Your task to perform on an android device: change notifications settings Image 0: 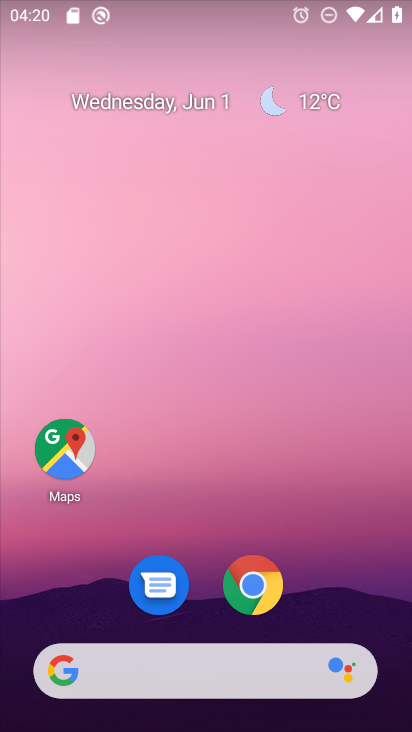
Step 0: drag from (211, 476) to (231, 27)
Your task to perform on an android device: change notifications settings Image 1: 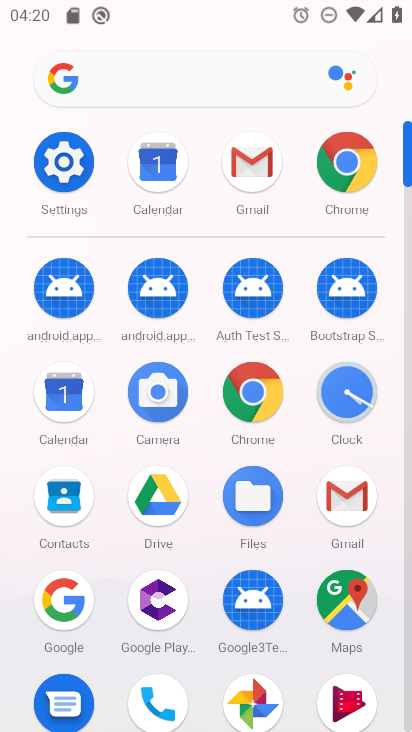
Step 1: click (74, 160)
Your task to perform on an android device: change notifications settings Image 2: 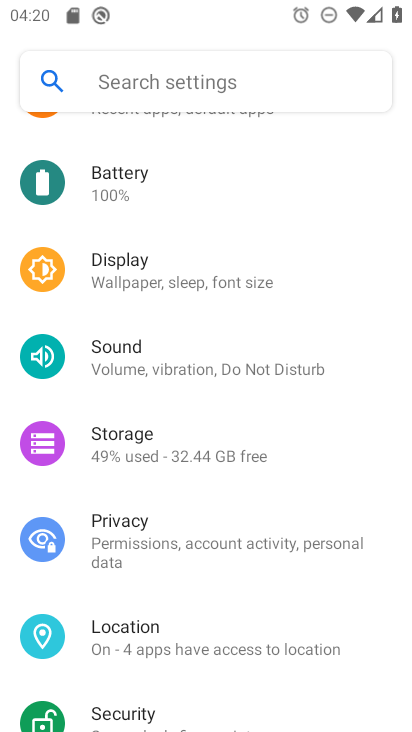
Step 2: drag from (220, 217) to (203, 675)
Your task to perform on an android device: change notifications settings Image 3: 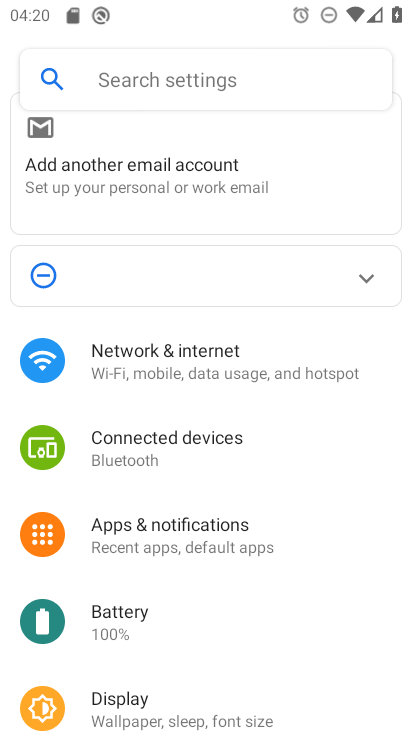
Step 3: click (195, 542)
Your task to perform on an android device: change notifications settings Image 4: 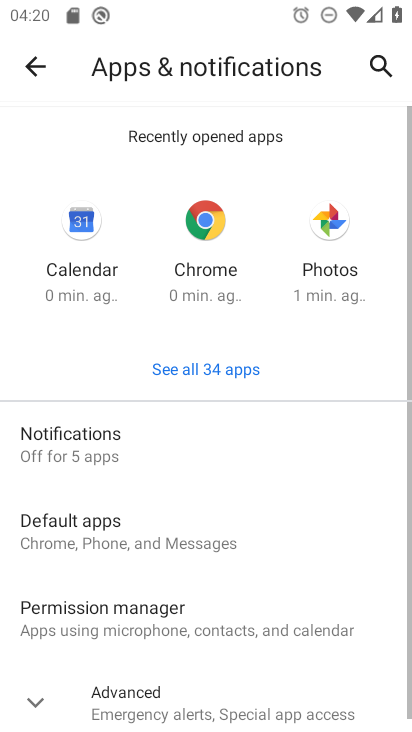
Step 4: click (235, 434)
Your task to perform on an android device: change notifications settings Image 5: 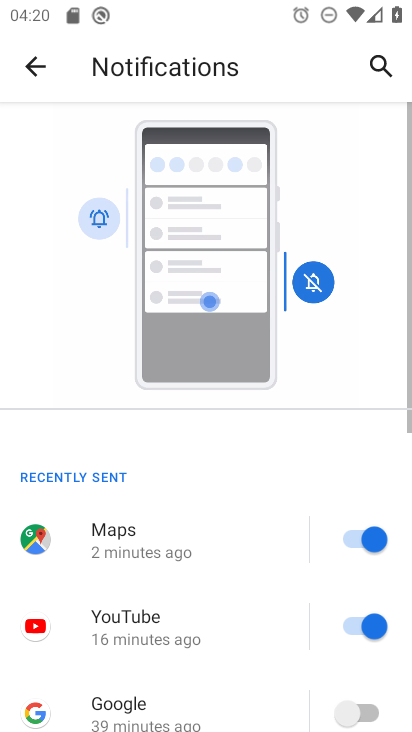
Step 5: drag from (284, 581) to (296, 137)
Your task to perform on an android device: change notifications settings Image 6: 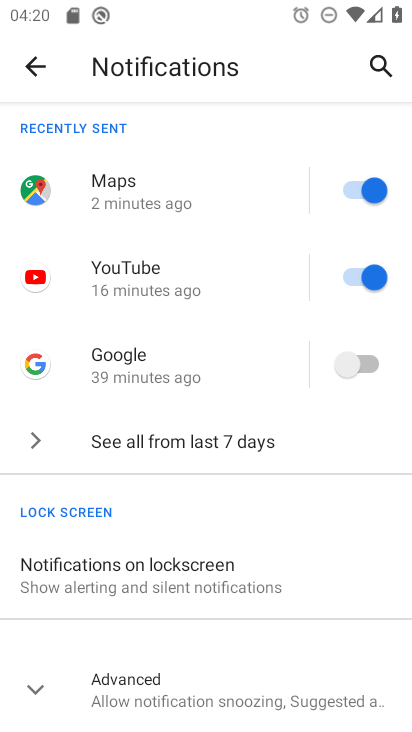
Step 6: click (245, 445)
Your task to perform on an android device: change notifications settings Image 7: 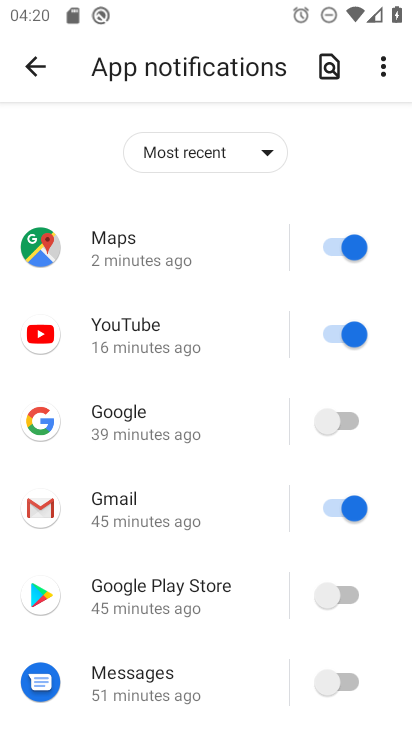
Step 7: click (339, 235)
Your task to perform on an android device: change notifications settings Image 8: 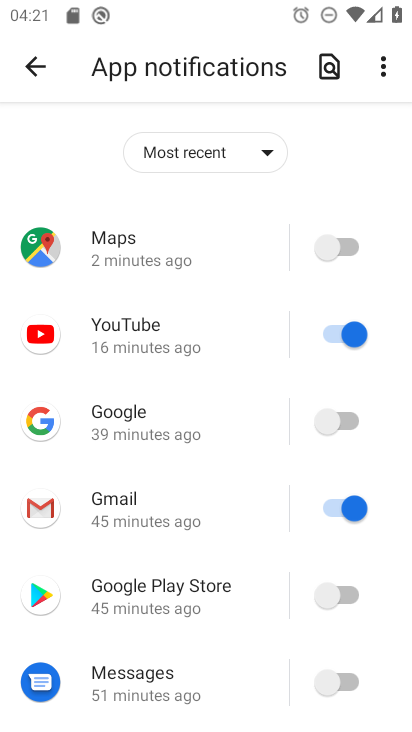
Step 8: click (342, 324)
Your task to perform on an android device: change notifications settings Image 9: 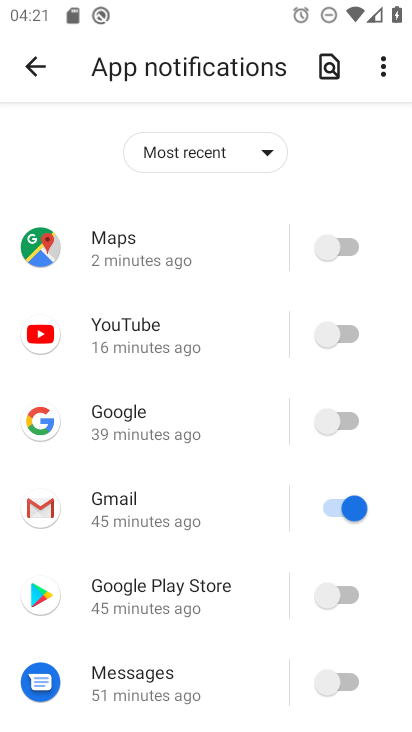
Step 9: click (350, 418)
Your task to perform on an android device: change notifications settings Image 10: 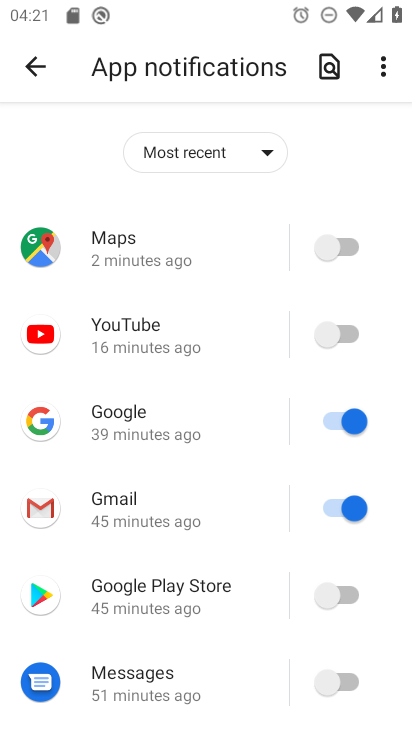
Step 10: click (348, 502)
Your task to perform on an android device: change notifications settings Image 11: 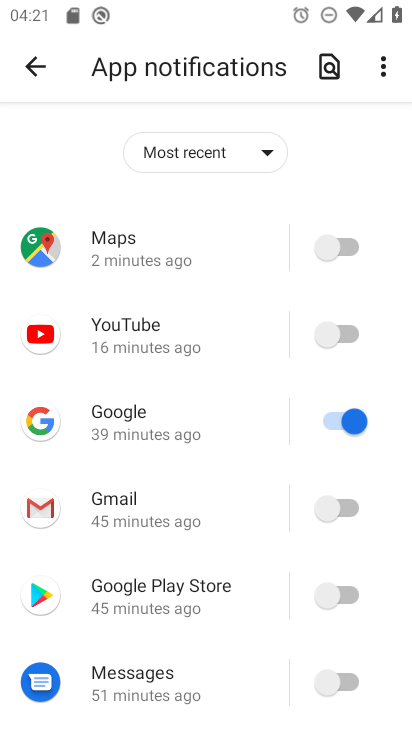
Step 11: click (344, 594)
Your task to perform on an android device: change notifications settings Image 12: 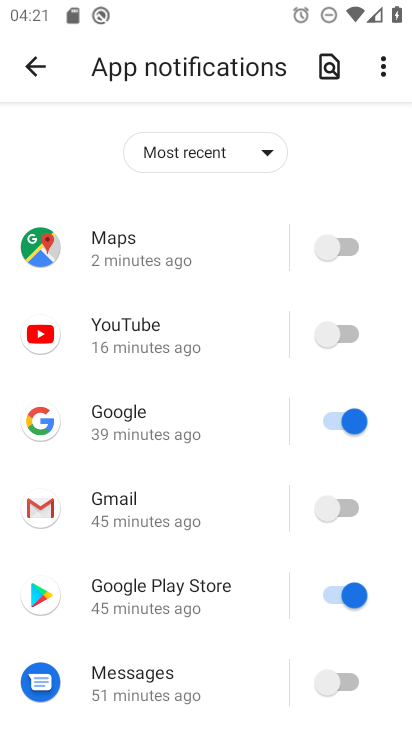
Step 12: click (353, 675)
Your task to perform on an android device: change notifications settings Image 13: 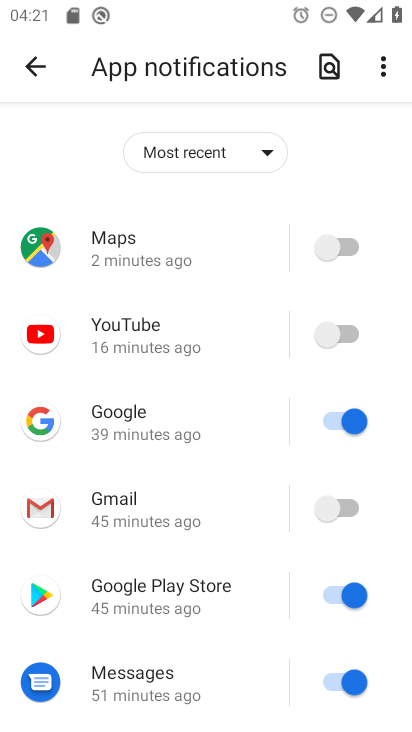
Step 13: drag from (230, 637) to (249, 238)
Your task to perform on an android device: change notifications settings Image 14: 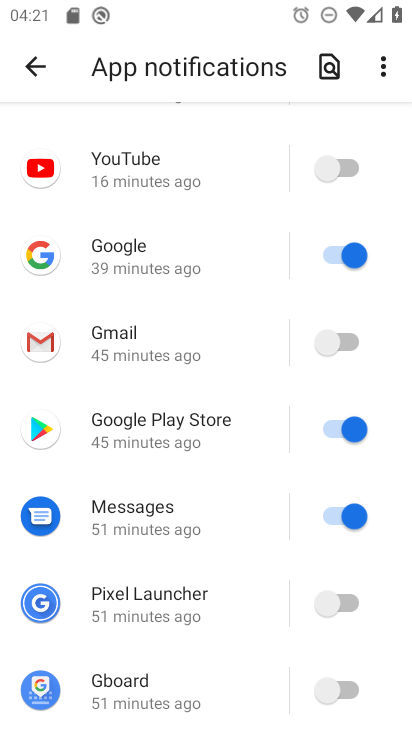
Step 14: click (345, 591)
Your task to perform on an android device: change notifications settings Image 15: 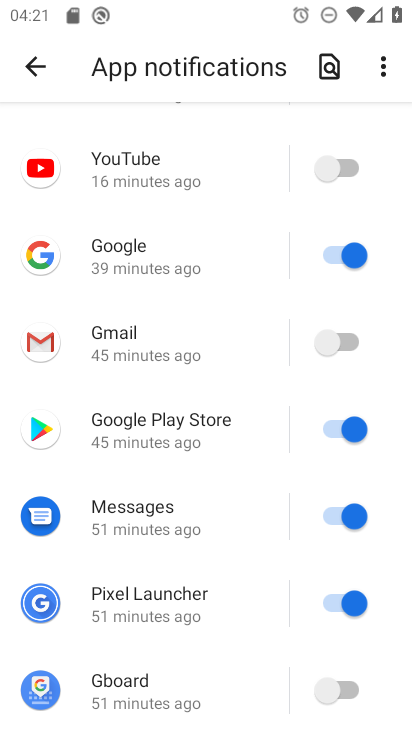
Step 15: click (345, 690)
Your task to perform on an android device: change notifications settings Image 16: 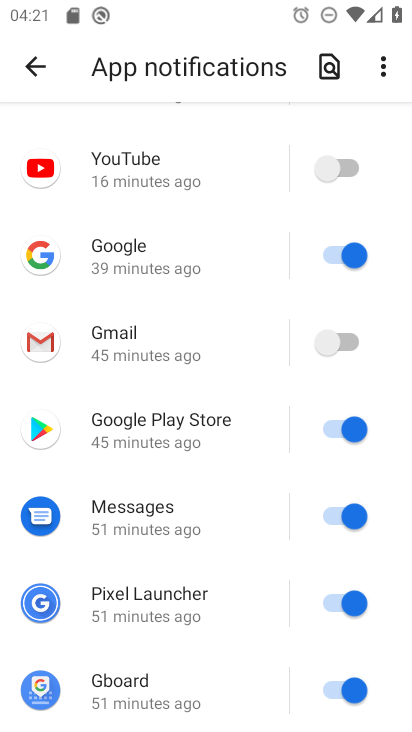
Step 16: task complete